Your task to perform on an android device: Open sound settings Image 0: 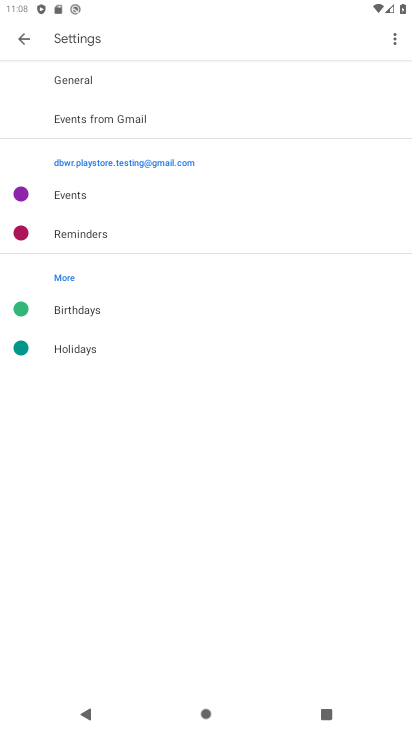
Step 0: press back button
Your task to perform on an android device: Open sound settings Image 1: 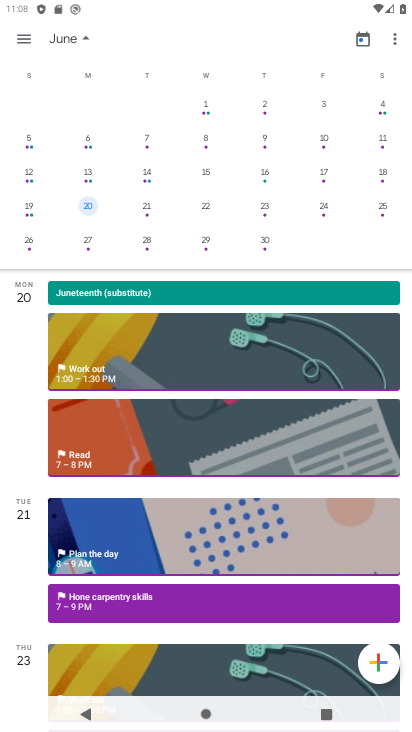
Step 1: press home button
Your task to perform on an android device: Open sound settings Image 2: 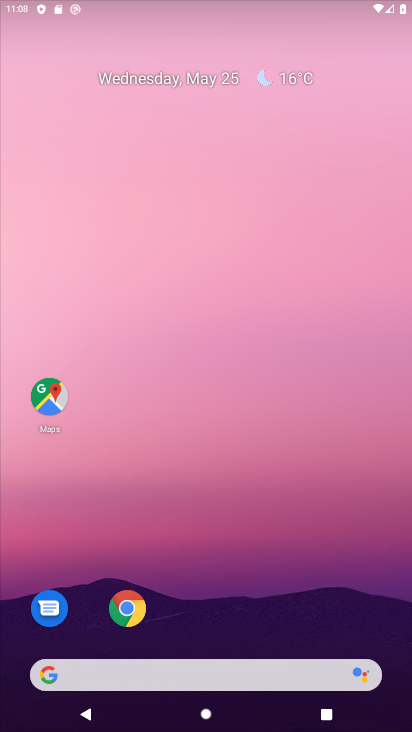
Step 2: drag from (204, 562) to (266, 0)
Your task to perform on an android device: Open sound settings Image 3: 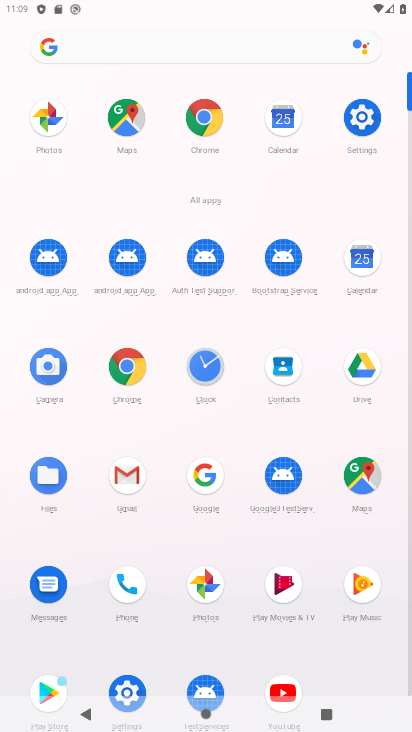
Step 3: click (354, 122)
Your task to perform on an android device: Open sound settings Image 4: 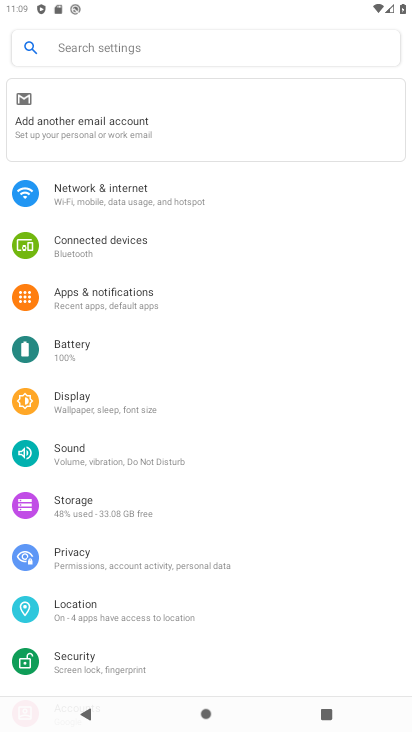
Step 4: click (79, 462)
Your task to perform on an android device: Open sound settings Image 5: 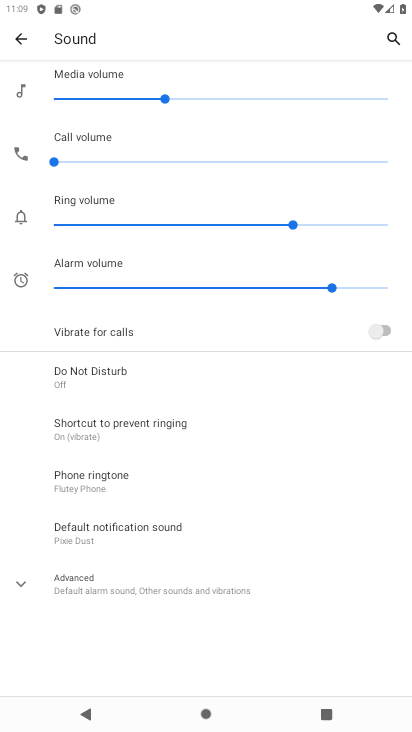
Step 5: task complete